Your task to perform on an android device: open a bookmark in the chrome app Image 0: 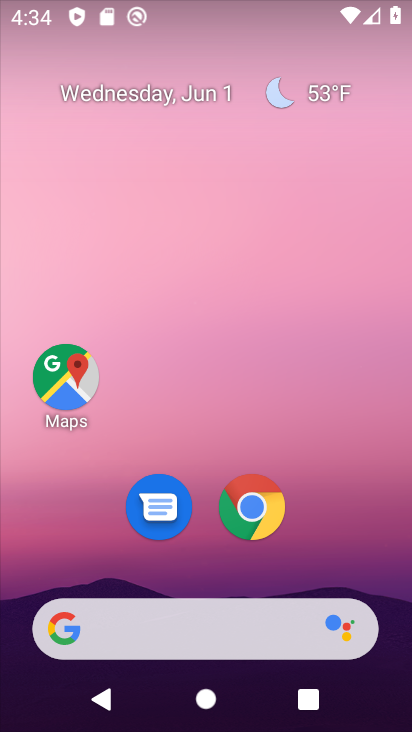
Step 0: drag from (355, 538) to (408, 3)
Your task to perform on an android device: open a bookmark in the chrome app Image 1: 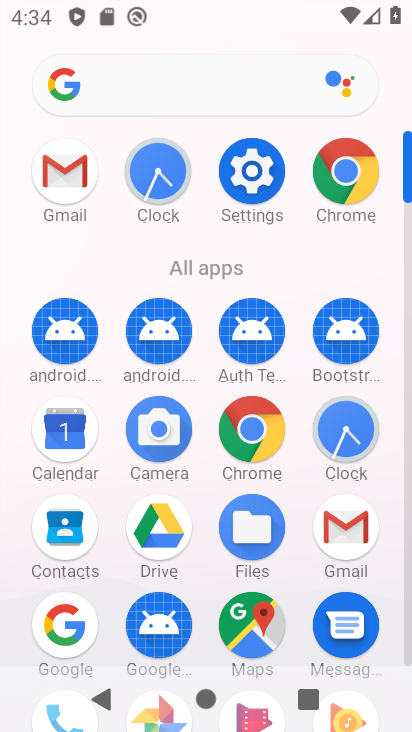
Step 1: click (359, 179)
Your task to perform on an android device: open a bookmark in the chrome app Image 2: 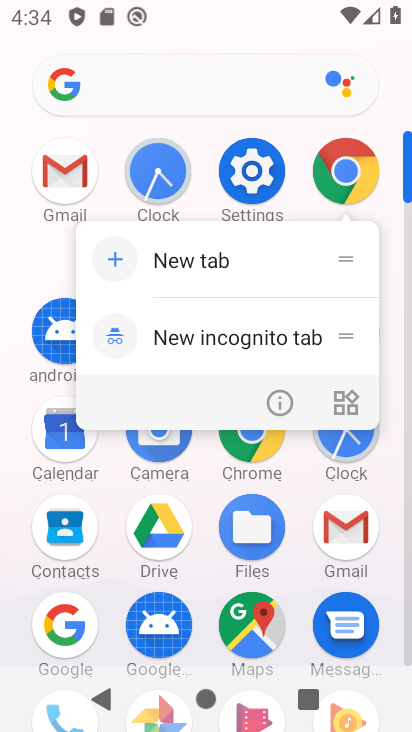
Step 2: click (359, 179)
Your task to perform on an android device: open a bookmark in the chrome app Image 3: 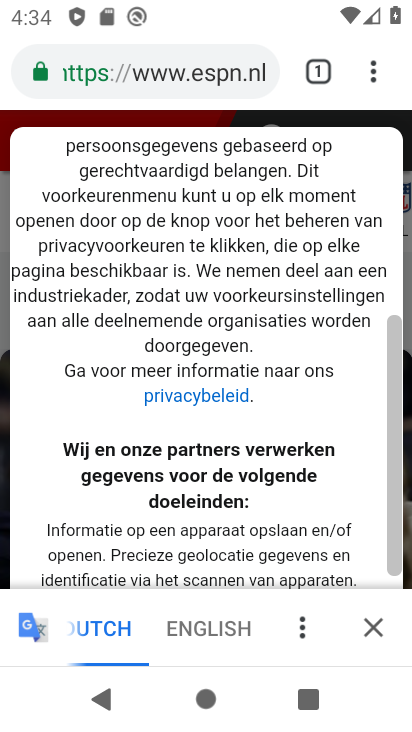
Step 3: drag from (376, 72) to (173, 270)
Your task to perform on an android device: open a bookmark in the chrome app Image 4: 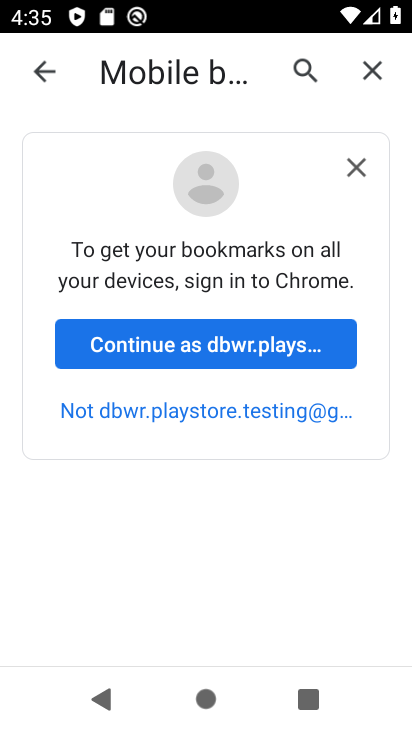
Step 4: click (262, 358)
Your task to perform on an android device: open a bookmark in the chrome app Image 5: 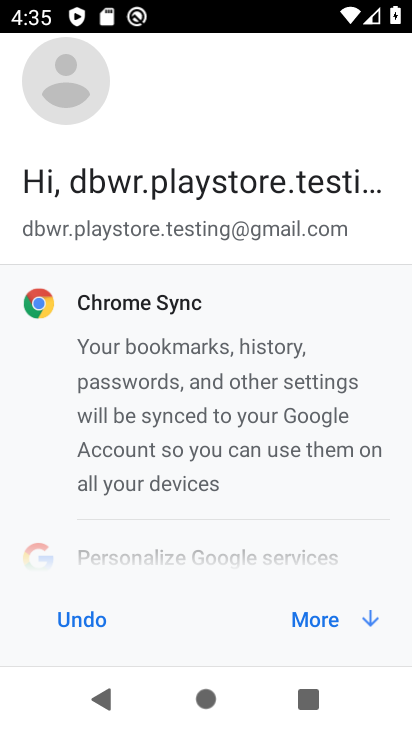
Step 5: click (322, 606)
Your task to perform on an android device: open a bookmark in the chrome app Image 6: 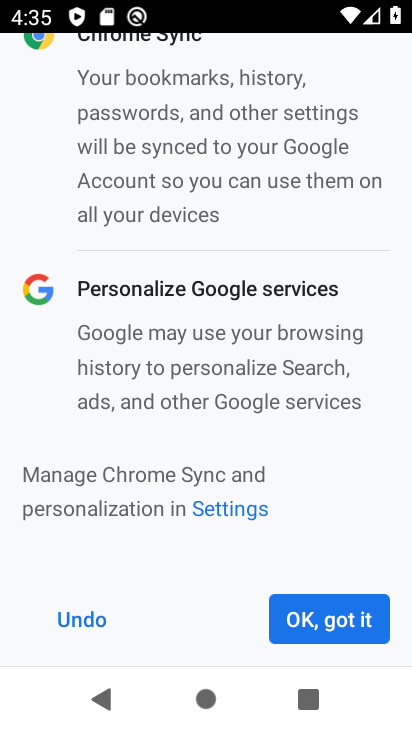
Step 6: click (332, 614)
Your task to perform on an android device: open a bookmark in the chrome app Image 7: 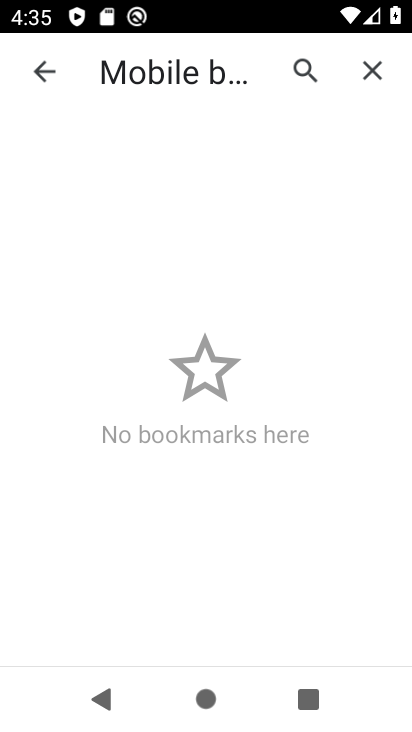
Step 7: task complete